Your task to perform on an android device: turn on translation in the chrome app Image 0: 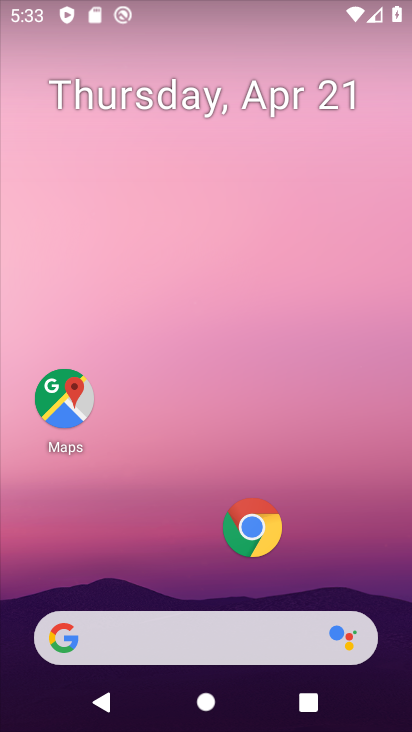
Step 0: click (248, 537)
Your task to perform on an android device: turn on translation in the chrome app Image 1: 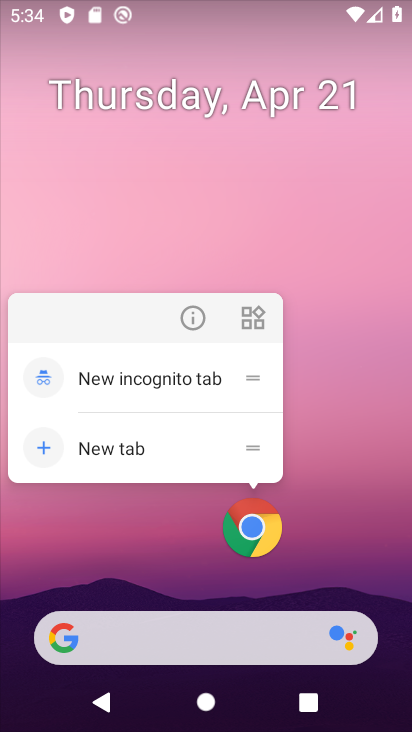
Step 1: click (252, 530)
Your task to perform on an android device: turn on translation in the chrome app Image 2: 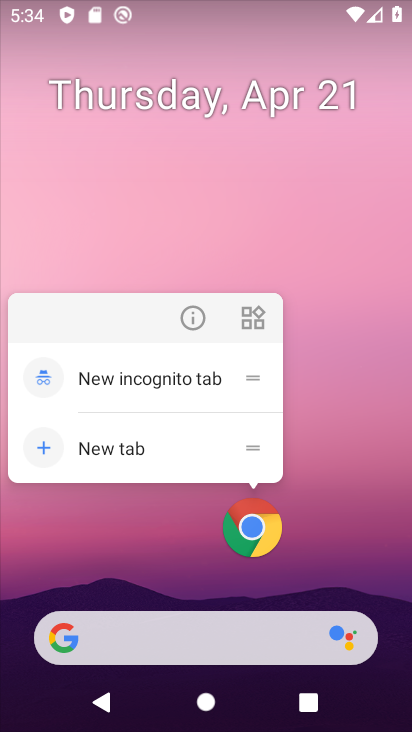
Step 2: click (260, 517)
Your task to perform on an android device: turn on translation in the chrome app Image 3: 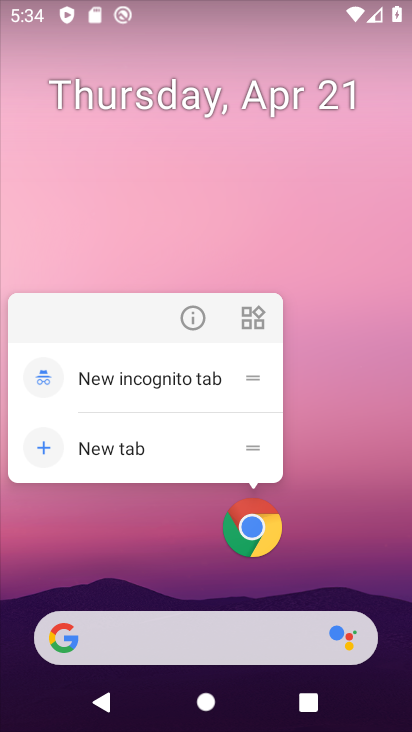
Step 3: click (248, 534)
Your task to perform on an android device: turn on translation in the chrome app Image 4: 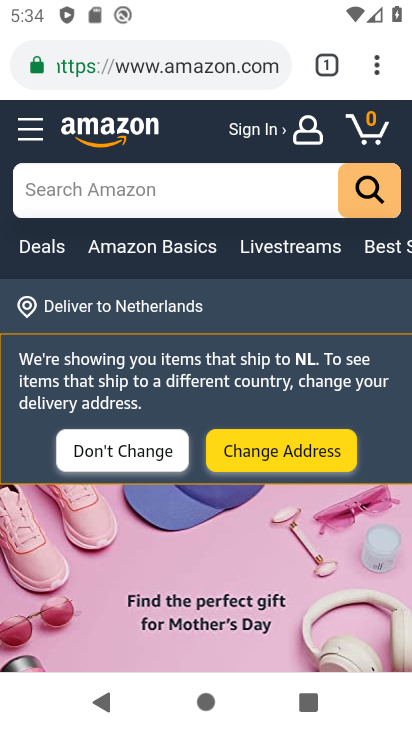
Step 4: click (379, 59)
Your task to perform on an android device: turn on translation in the chrome app Image 5: 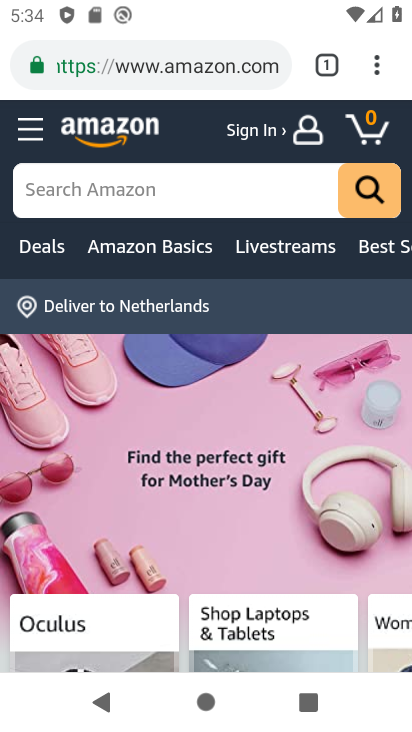
Step 5: drag from (374, 58) to (172, 571)
Your task to perform on an android device: turn on translation in the chrome app Image 6: 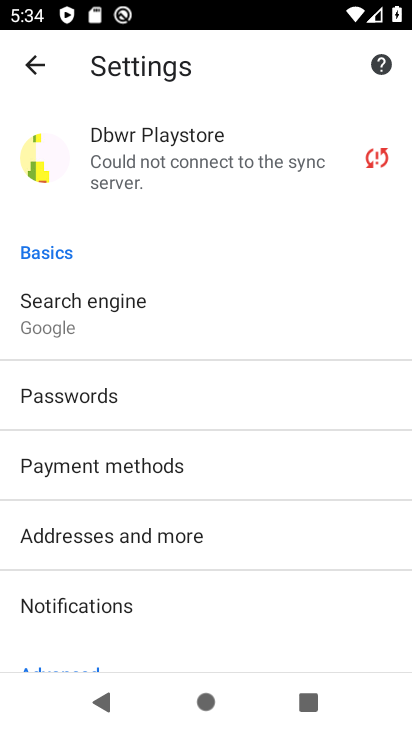
Step 6: drag from (164, 596) to (308, 39)
Your task to perform on an android device: turn on translation in the chrome app Image 7: 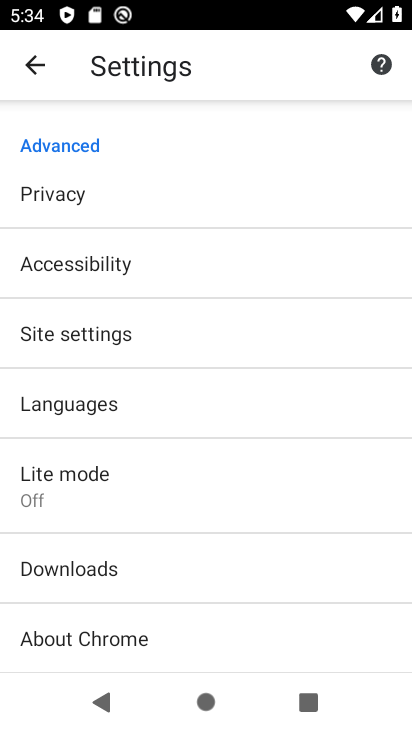
Step 7: click (74, 394)
Your task to perform on an android device: turn on translation in the chrome app Image 8: 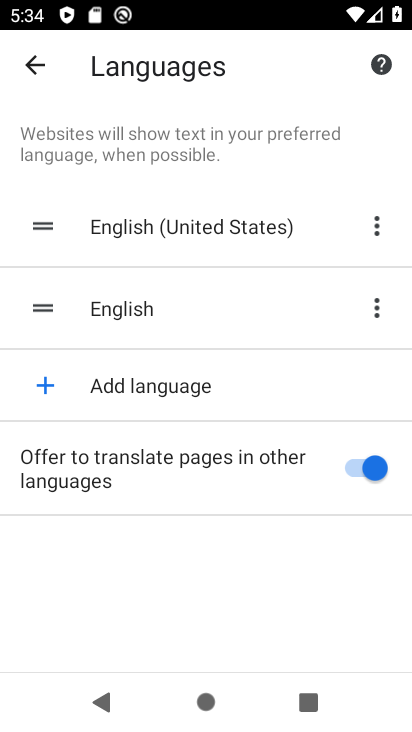
Step 8: task complete